Your task to perform on an android device: delete browsing data in the chrome app Image 0: 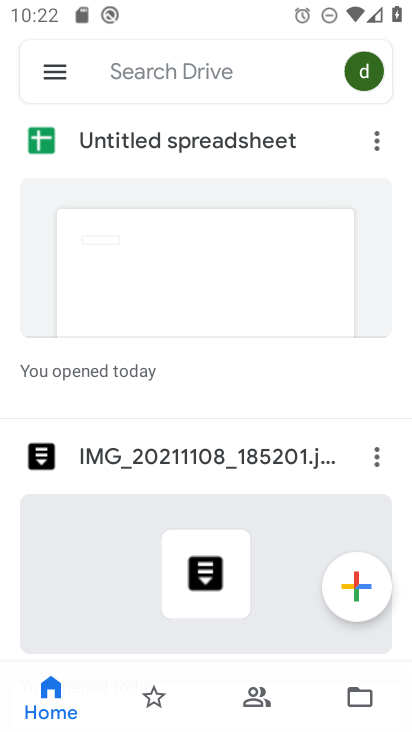
Step 0: press home button
Your task to perform on an android device: delete browsing data in the chrome app Image 1: 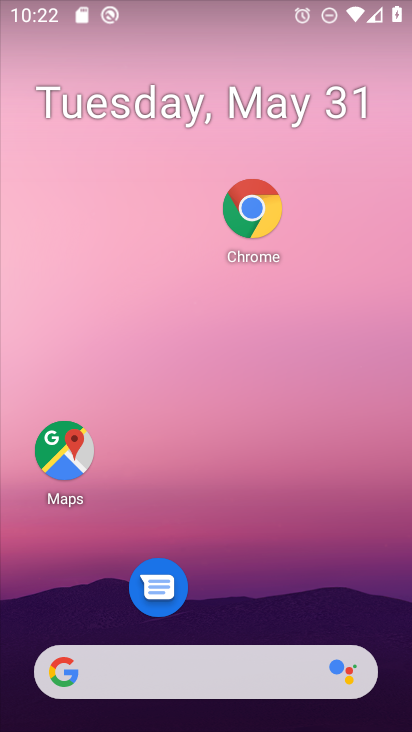
Step 1: click (246, 202)
Your task to perform on an android device: delete browsing data in the chrome app Image 2: 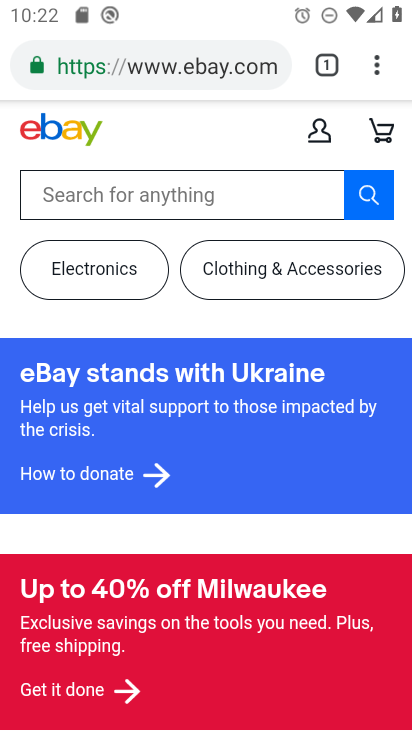
Step 2: click (375, 65)
Your task to perform on an android device: delete browsing data in the chrome app Image 3: 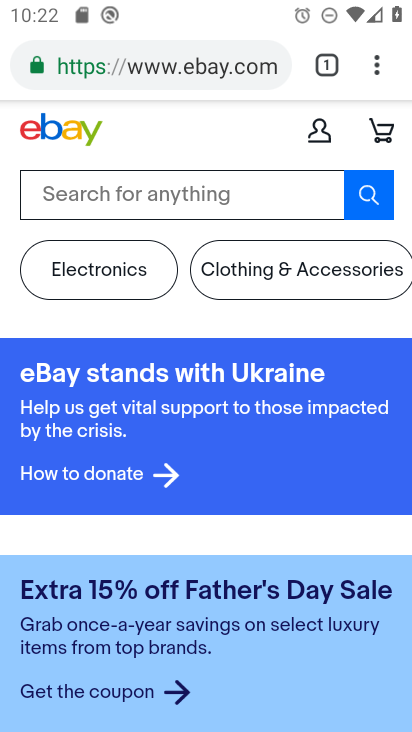
Step 3: click (373, 62)
Your task to perform on an android device: delete browsing data in the chrome app Image 4: 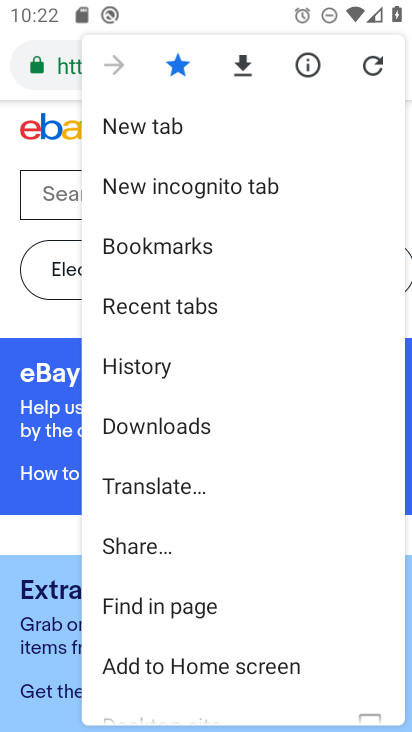
Step 4: click (187, 361)
Your task to perform on an android device: delete browsing data in the chrome app Image 5: 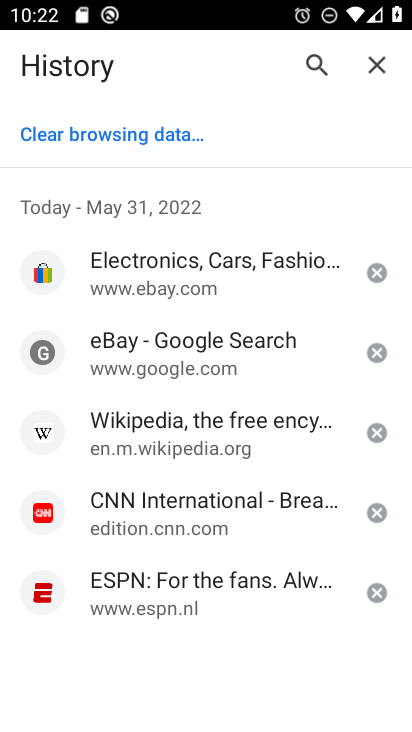
Step 5: click (127, 132)
Your task to perform on an android device: delete browsing data in the chrome app Image 6: 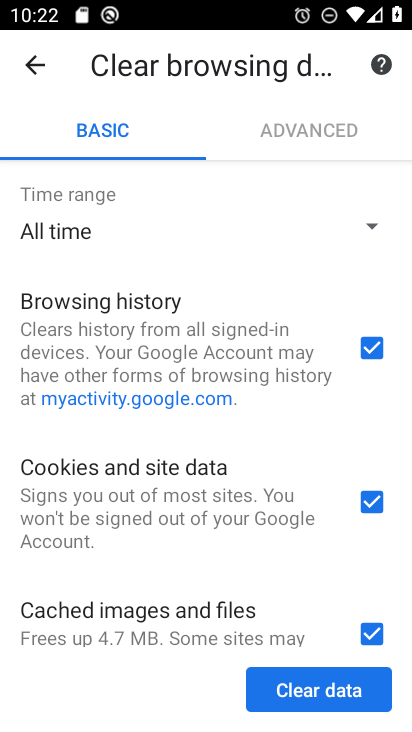
Step 6: click (321, 684)
Your task to perform on an android device: delete browsing data in the chrome app Image 7: 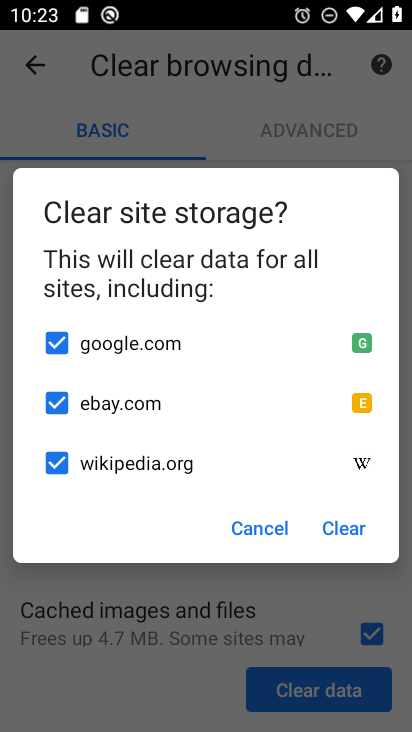
Step 7: click (345, 511)
Your task to perform on an android device: delete browsing data in the chrome app Image 8: 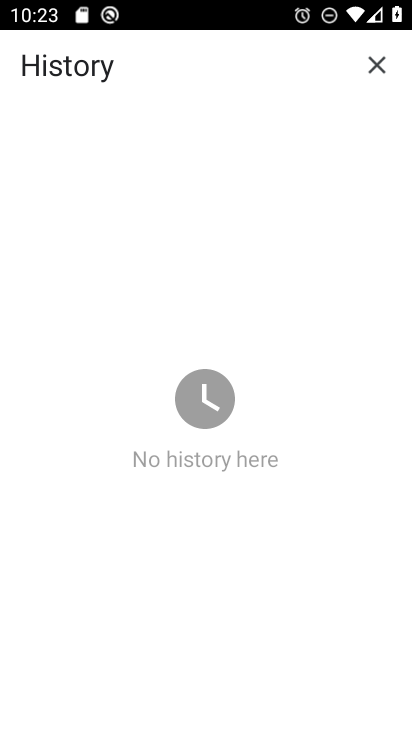
Step 8: task complete